Your task to perform on an android device: Go to ESPN.com Image 0: 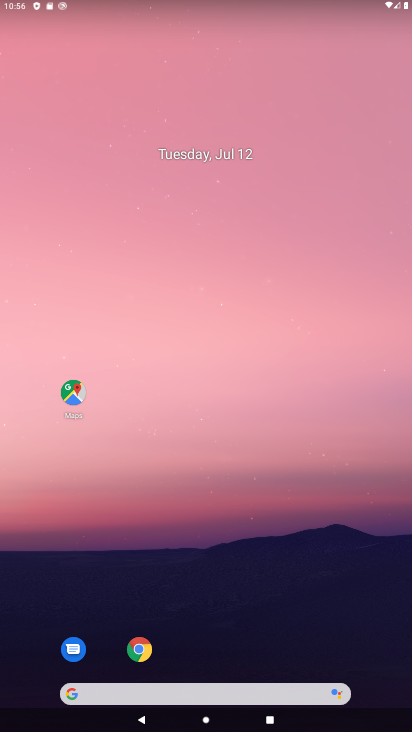
Step 0: drag from (289, 591) to (275, 88)
Your task to perform on an android device: Go to ESPN.com Image 1: 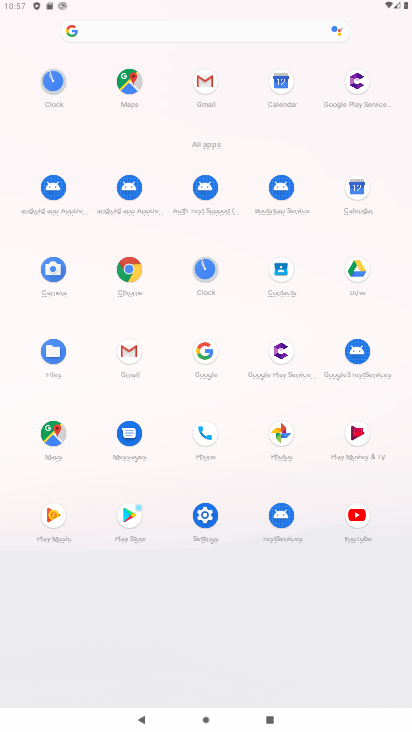
Step 1: click (122, 270)
Your task to perform on an android device: Go to ESPN.com Image 2: 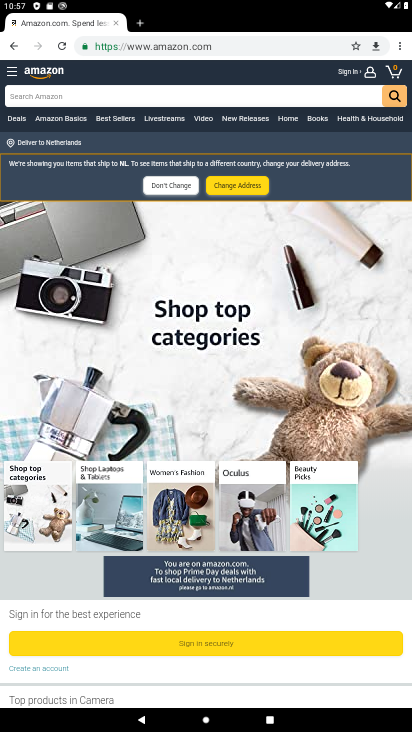
Step 2: click (153, 37)
Your task to perform on an android device: Go to ESPN.com Image 3: 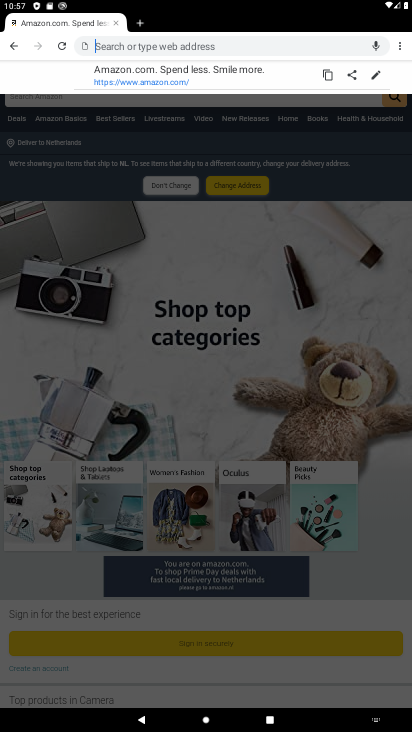
Step 3: type "ESPN.com"
Your task to perform on an android device: Go to ESPN.com Image 4: 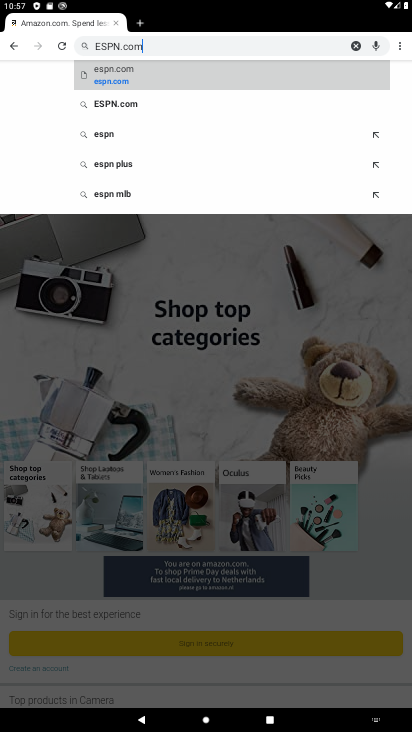
Step 4: type ""
Your task to perform on an android device: Go to ESPN.com Image 5: 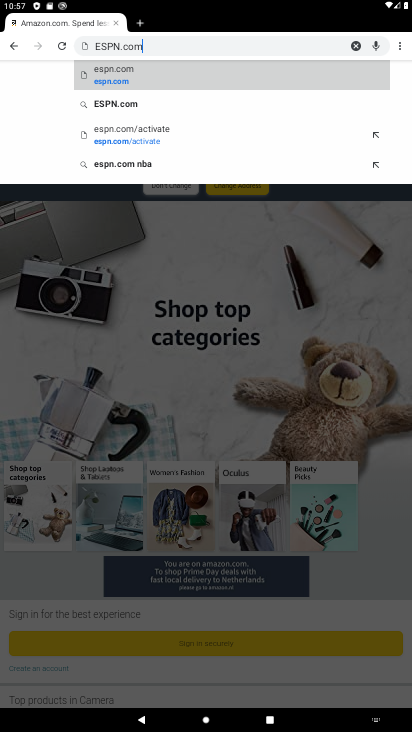
Step 5: click (103, 67)
Your task to perform on an android device: Go to ESPN.com Image 6: 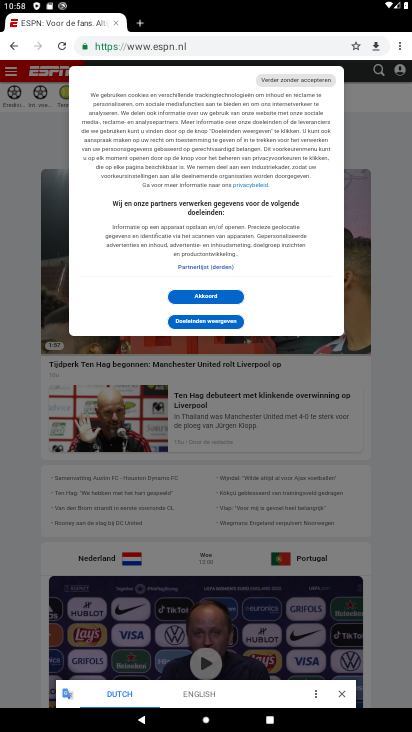
Step 6: task complete